Your task to perform on an android device: toggle notification dots Image 0: 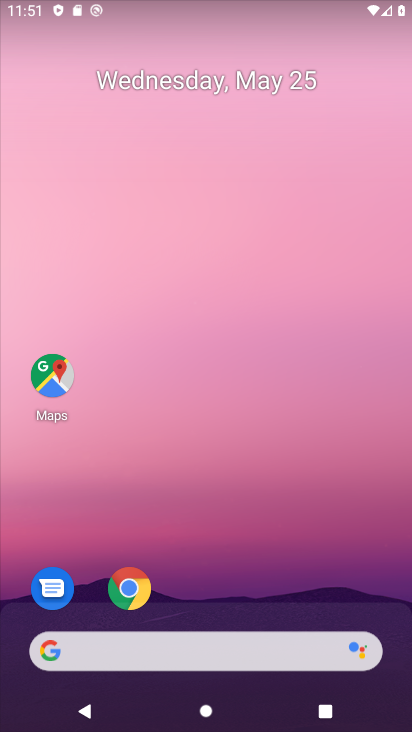
Step 0: drag from (159, 648) to (272, 66)
Your task to perform on an android device: toggle notification dots Image 1: 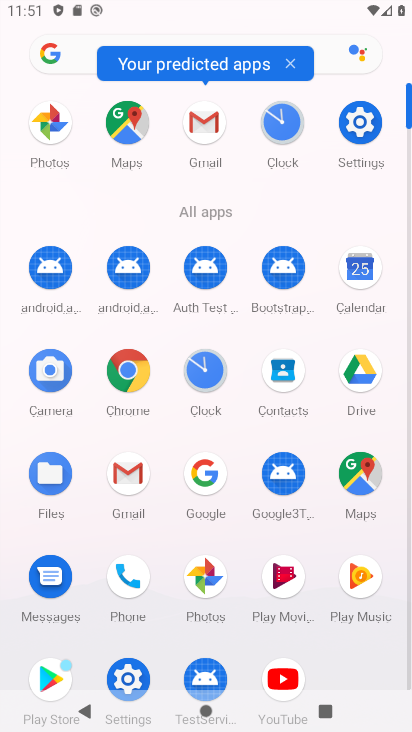
Step 1: drag from (185, 696) to (228, 507)
Your task to perform on an android device: toggle notification dots Image 2: 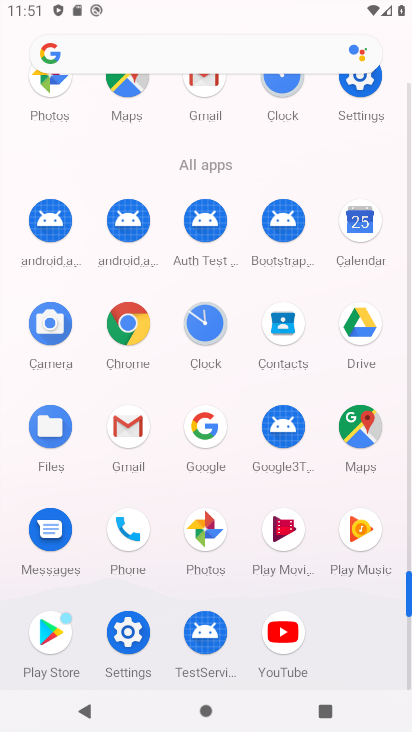
Step 2: click (148, 643)
Your task to perform on an android device: toggle notification dots Image 3: 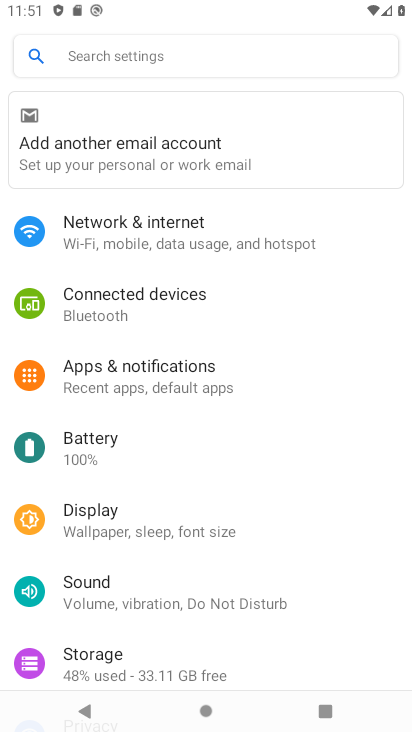
Step 3: drag from (180, 647) to (294, 268)
Your task to perform on an android device: toggle notification dots Image 4: 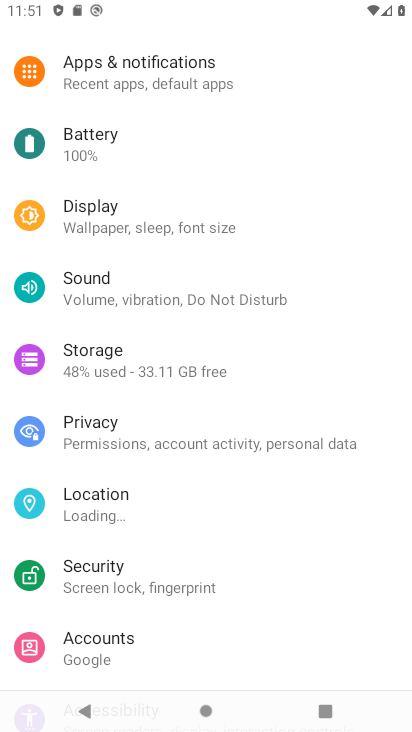
Step 4: click (185, 55)
Your task to perform on an android device: toggle notification dots Image 5: 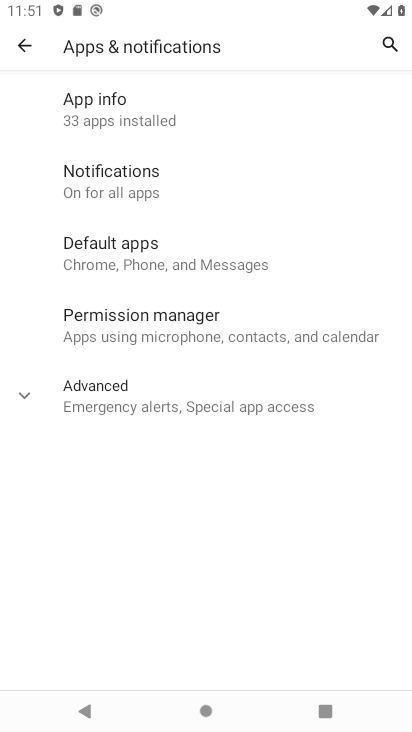
Step 5: click (177, 186)
Your task to perform on an android device: toggle notification dots Image 6: 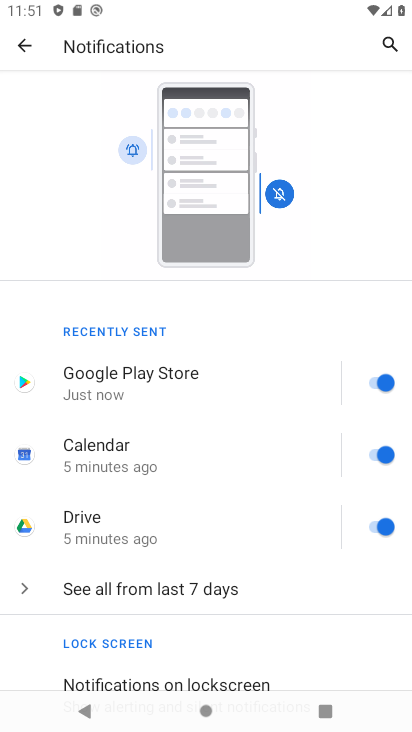
Step 6: drag from (166, 599) to (285, 218)
Your task to perform on an android device: toggle notification dots Image 7: 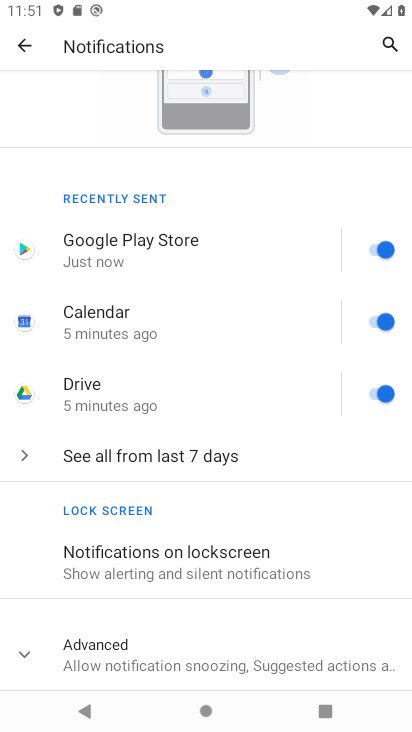
Step 7: drag from (132, 662) to (248, 438)
Your task to perform on an android device: toggle notification dots Image 8: 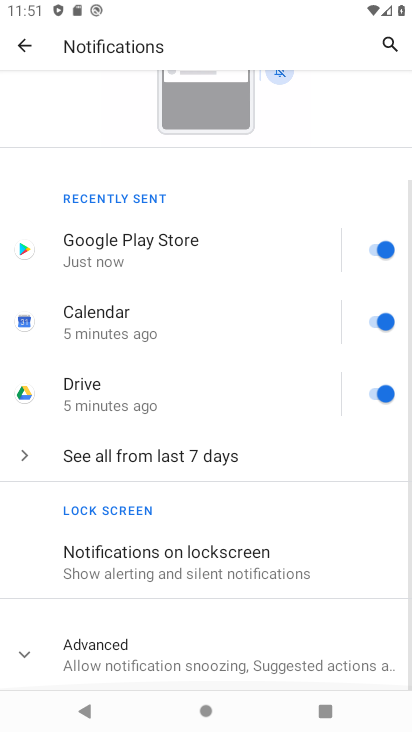
Step 8: click (177, 657)
Your task to perform on an android device: toggle notification dots Image 9: 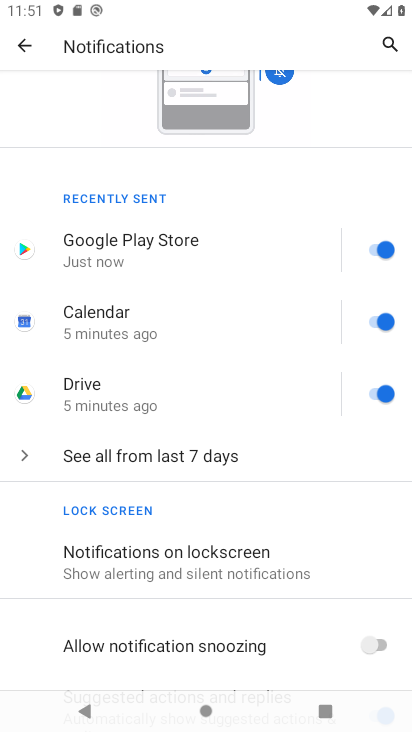
Step 9: drag from (164, 608) to (262, 215)
Your task to perform on an android device: toggle notification dots Image 10: 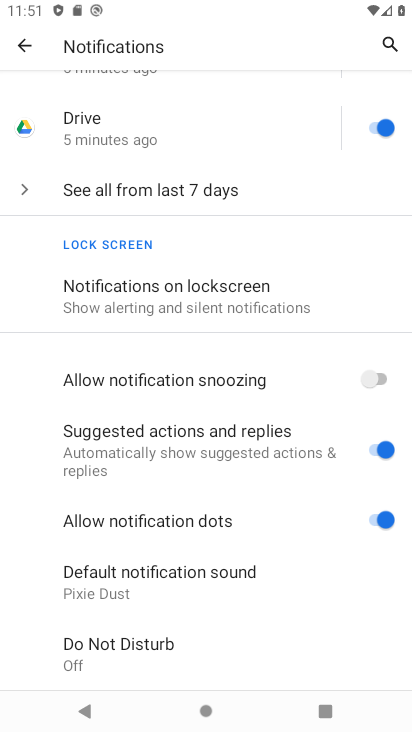
Step 10: click (364, 518)
Your task to perform on an android device: toggle notification dots Image 11: 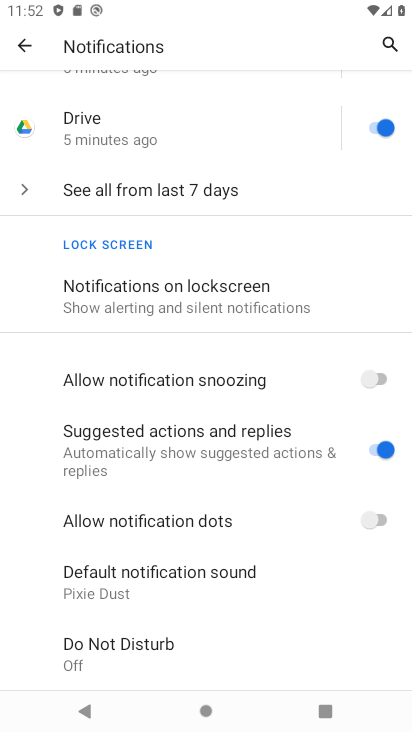
Step 11: task complete